Your task to perform on an android device: visit the assistant section in the google photos Image 0: 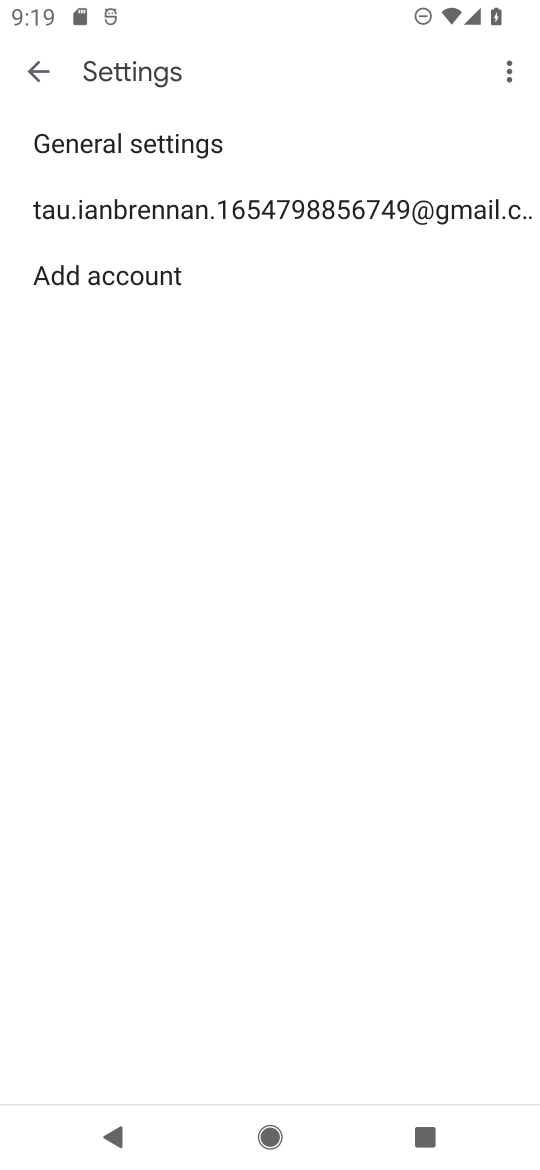
Step 0: press home button
Your task to perform on an android device: visit the assistant section in the google photos Image 1: 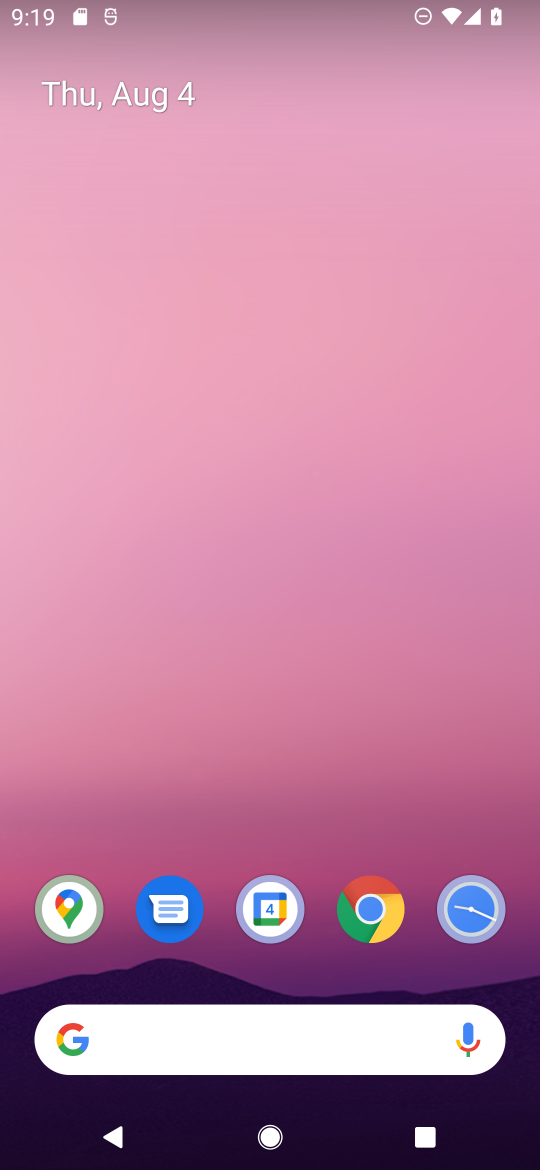
Step 1: drag from (308, 827) to (312, 264)
Your task to perform on an android device: visit the assistant section in the google photos Image 2: 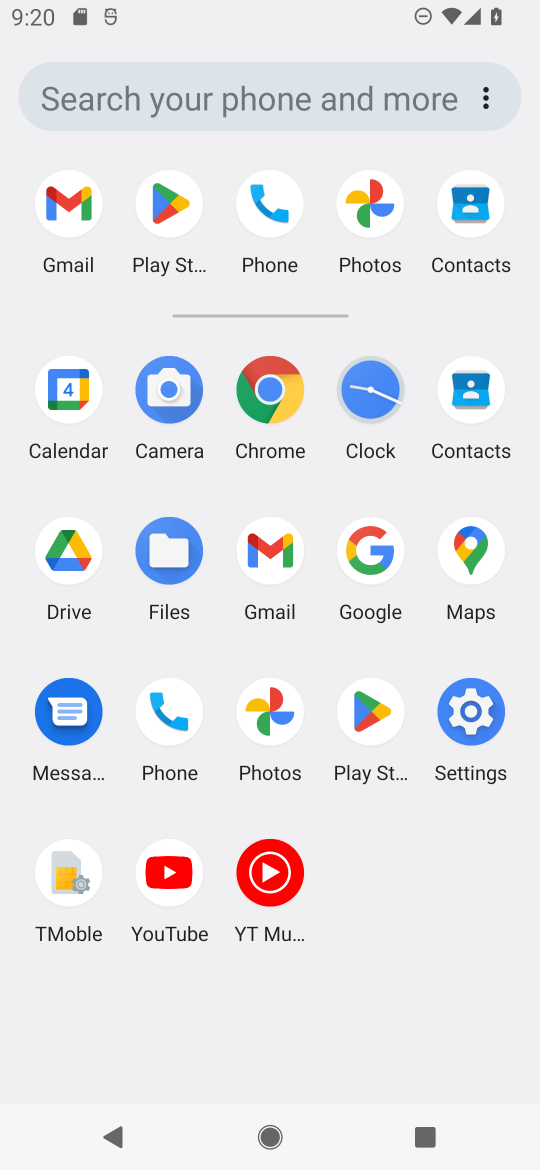
Step 2: click (276, 723)
Your task to perform on an android device: visit the assistant section in the google photos Image 3: 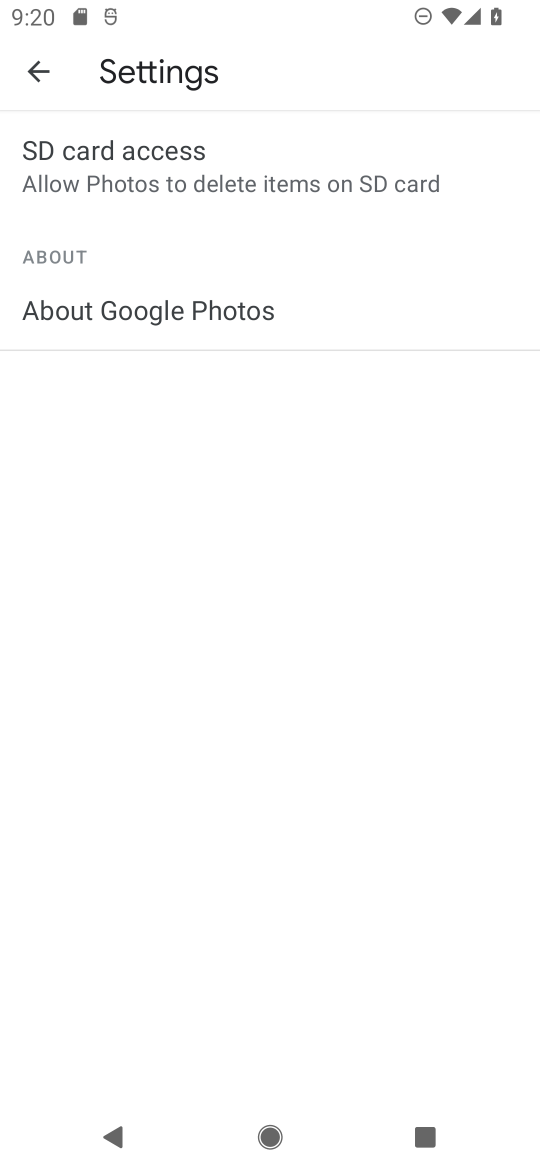
Step 3: task complete